Your task to perform on an android device: toggle pop-ups in chrome Image 0: 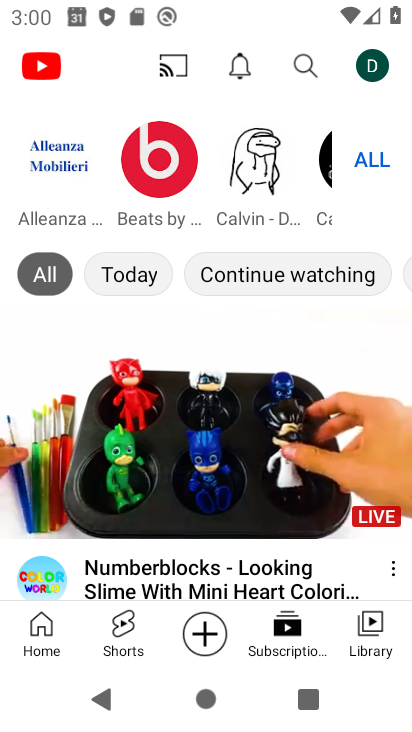
Step 0: press home button
Your task to perform on an android device: toggle pop-ups in chrome Image 1: 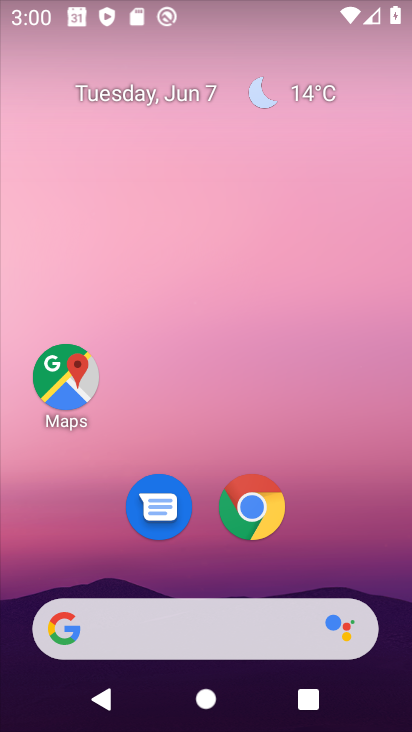
Step 1: drag from (357, 461) to (340, 151)
Your task to perform on an android device: toggle pop-ups in chrome Image 2: 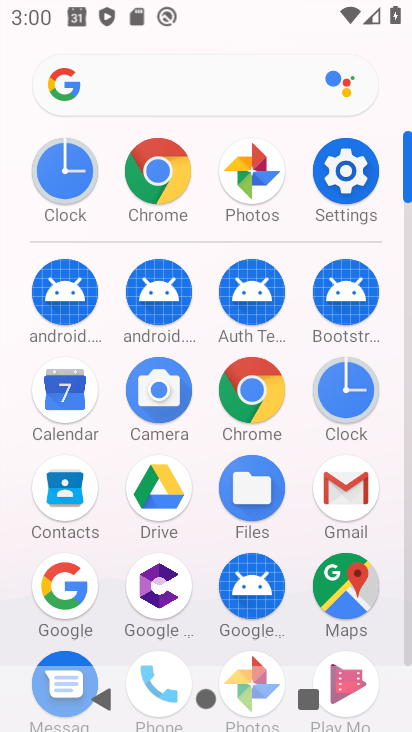
Step 2: click (252, 395)
Your task to perform on an android device: toggle pop-ups in chrome Image 3: 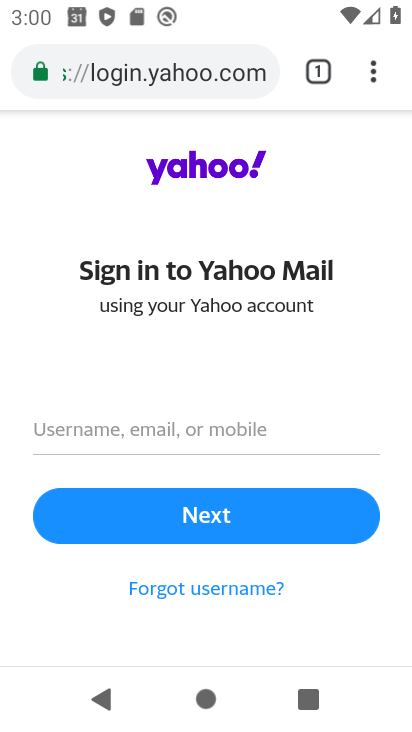
Step 3: click (375, 74)
Your task to perform on an android device: toggle pop-ups in chrome Image 4: 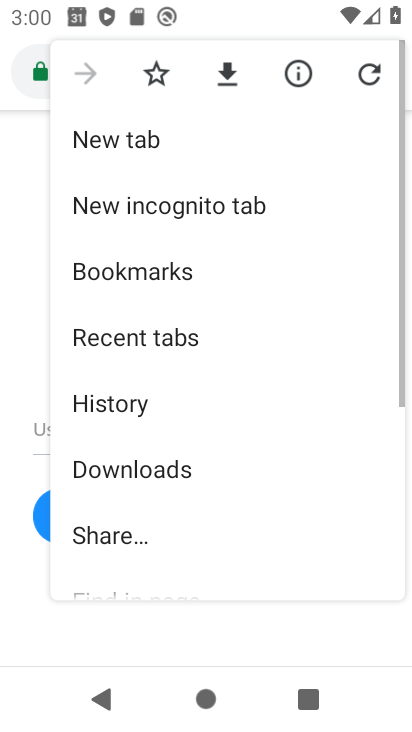
Step 4: drag from (201, 490) to (309, 15)
Your task to perform on an android device: toggle pop-ups in chrome Image 5: 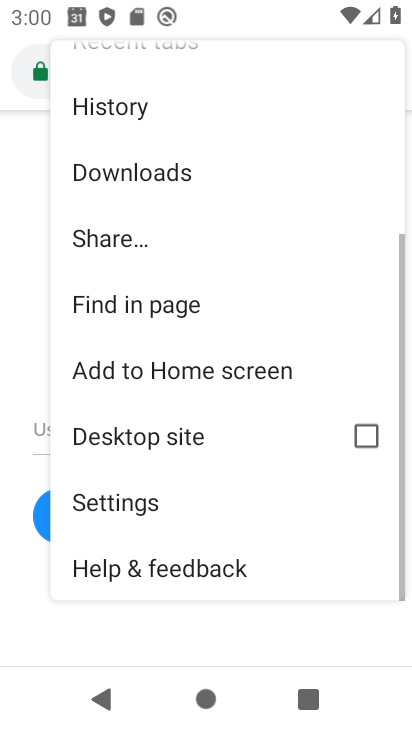
Step 5: click (146, 501)
Your task to perform on an android device: toggle pop-ups in chrome Image 6: 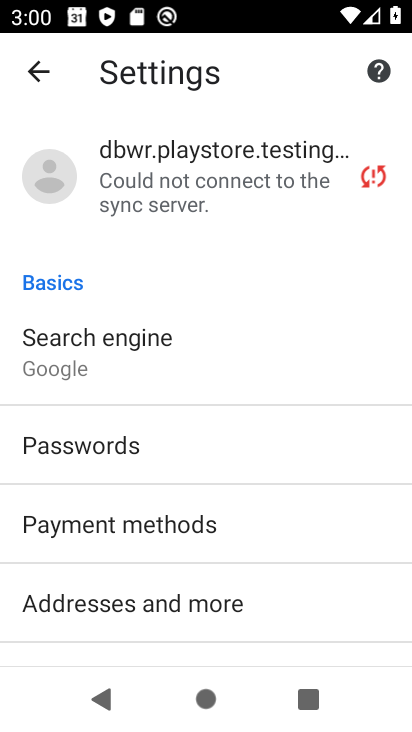
Step 6: drag from (209, 517) to (254, 116)
Your task to perform on an android device: toggle pop-ups in chrome Image 7: 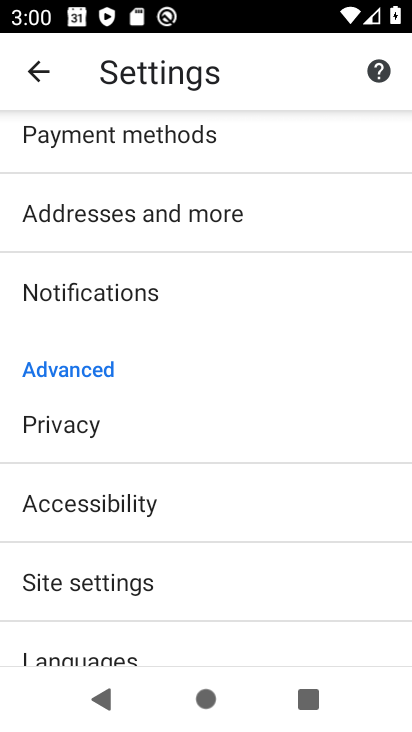
Step 7: click (126, 579)
Your task to perform on an android device: toggle pop-ups in chrome Image 8: 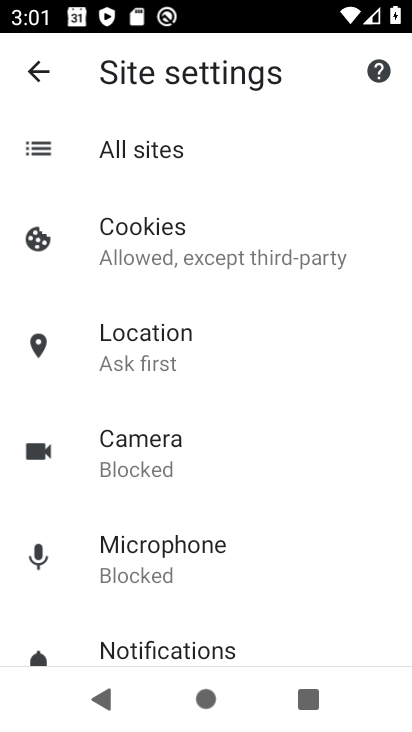
Step 8: drag from (241, 530) to (246, 129)
Your task to perform on an android device: toggle pop-ups in chrome Image 9: 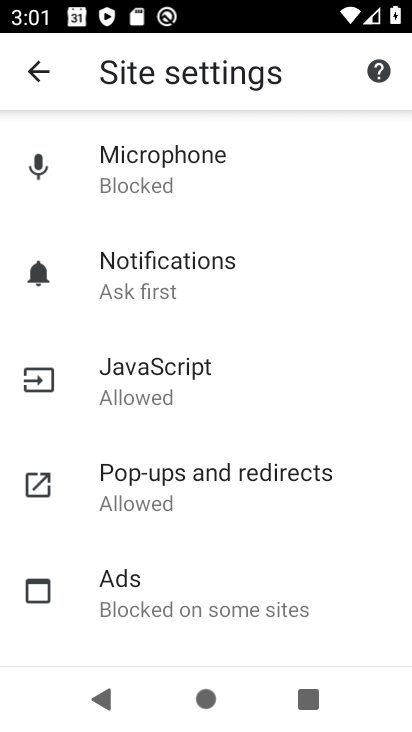
Step 9: click (200, 466)
Your task to perform on an android device: toggle pop-ups in chrome Image 10: 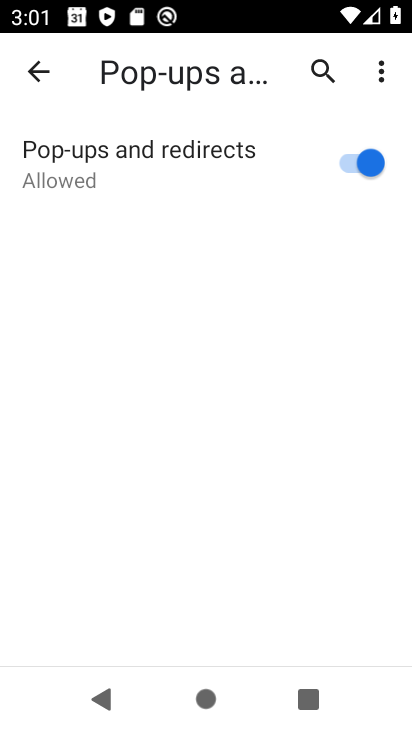
Step 10: click (359, 161)
Your task to perform on an android device: toggle pop-ups in chrome Image 11: 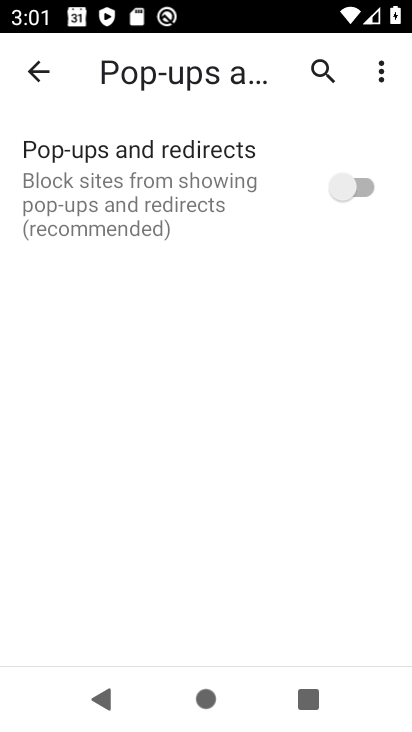
Step 11: task complete